Your task to perform on an android device: check battery use Image 0: 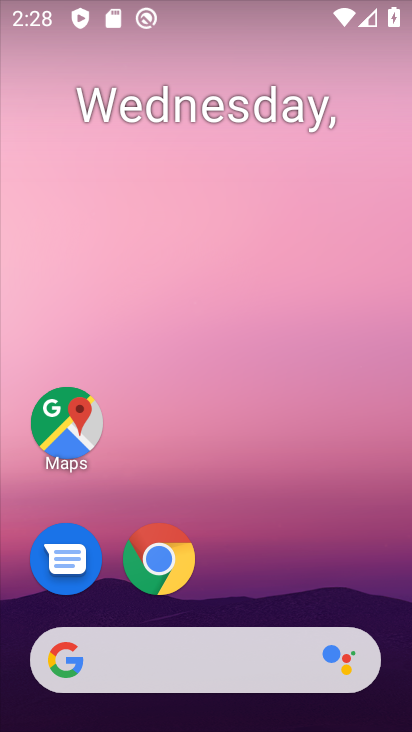
Step 0: drag from (218, 547) to (319, 7)
Your task to perform on an android device: check battery use Image 1: 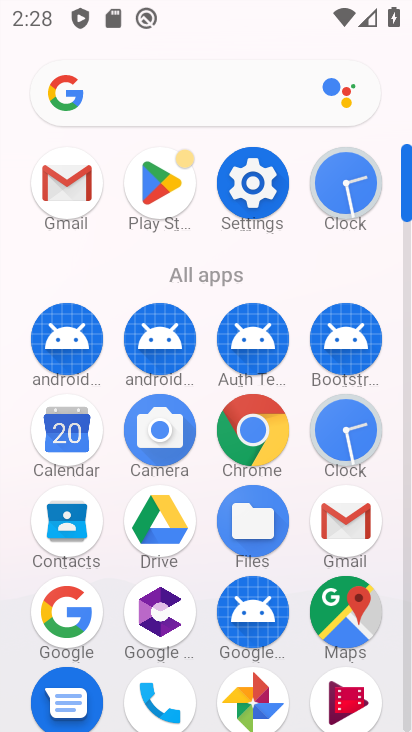
Step 1: click (253, 172)
Your task to perform on an android device: check battery use Image 2: 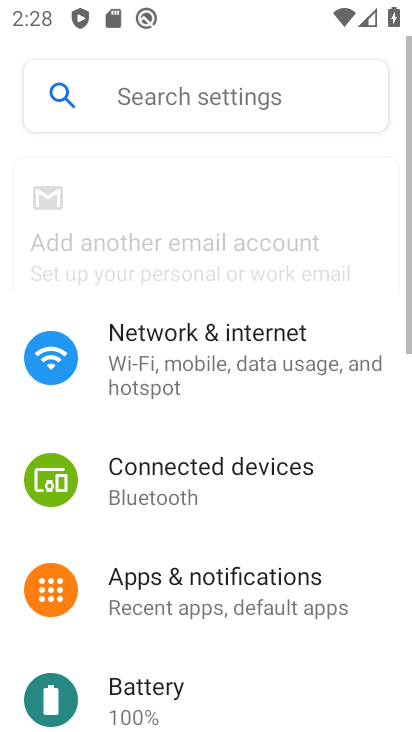
Step 2: click (149, 692)
Your task to perform on an android device: check battery use Image 3: 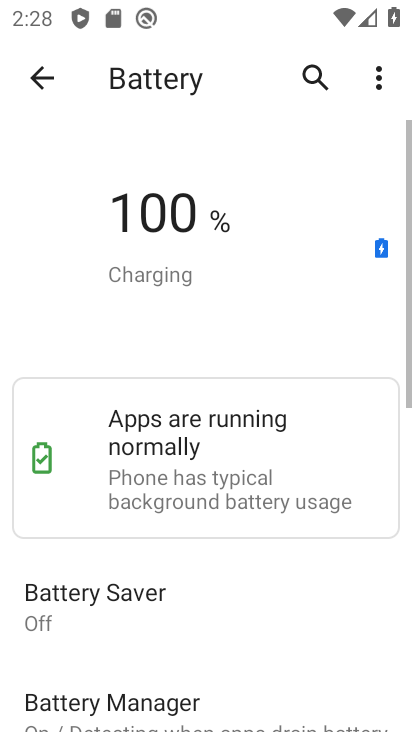
Step 3: click (383, 71)
Your task to perform on an android device: check battery use Image 4: 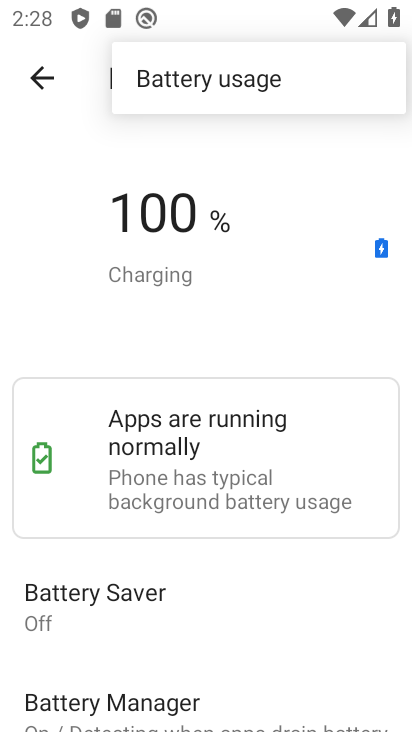
Step 4: click (289, 95)
Your task to perform on an android device: check battery use Image 5: 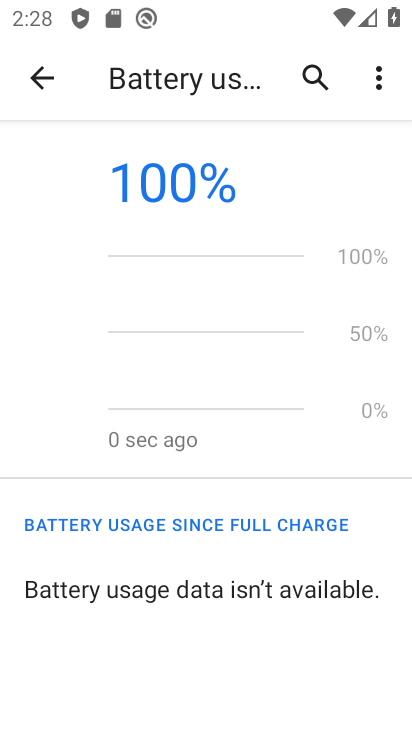
Step 5: task complete